Your task to perform on an android device: turn on javascript in the chrome app Image 0: 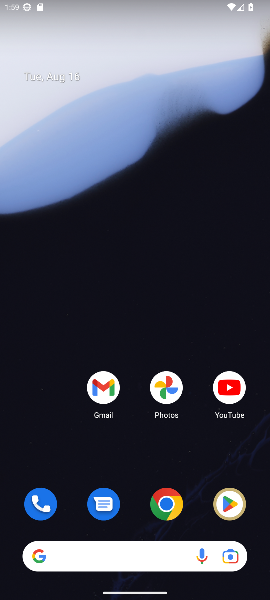
Step 0: click (165, 501)
Your task to perform on an android device: turn on javascript in the chrome app Image 1: 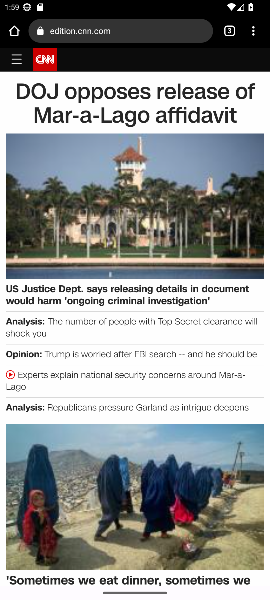
Step 1: click (255, 32)
Your task to perform on an android device: turn on javascript in the chrome app Image 2: 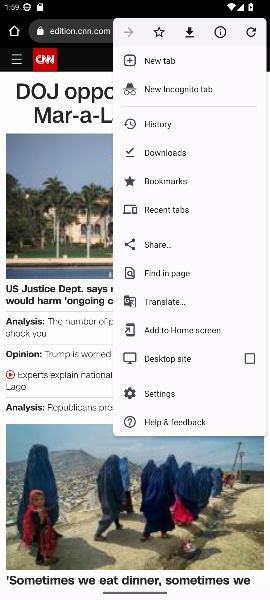
Step 2: click (160, 391)
Your task to perform on an android device: turn on javascript in the chrome app Image 3: 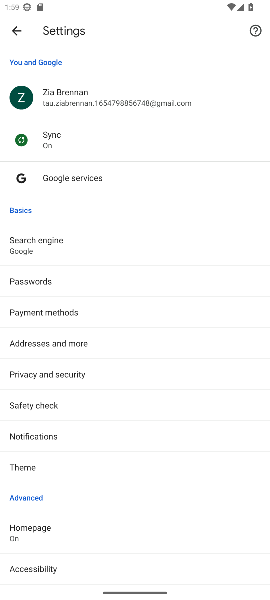
Step 3: drag from (135, 504) to (91, 251)
Your task to perform on an android device: turn on javascript in the chrome app Image 4: 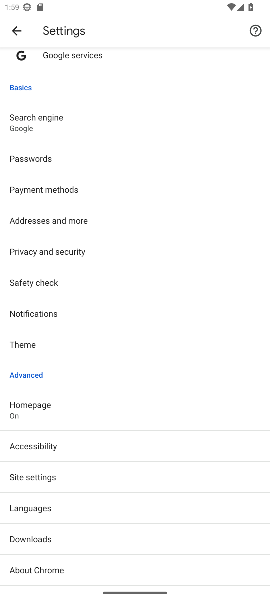
Step 4: click (30, 479)
Your task to perform on an android device: turn on javascript in the chrome app Image 5: 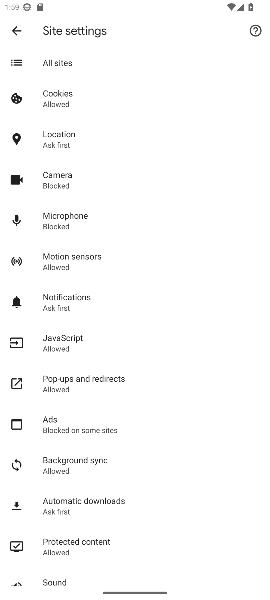
Step 5: click (60, 335)
Your task to perform on an android device: turn on javascript in the chrome app Image 6: 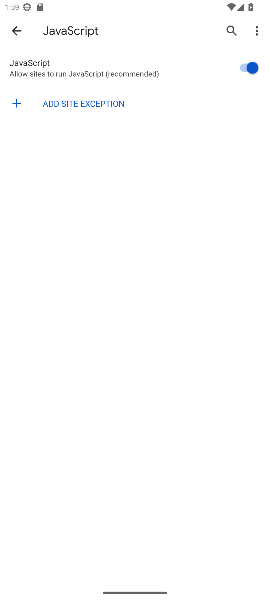
Step 6: task complete